Your task to perform on an android device: turn on location history Image 0: 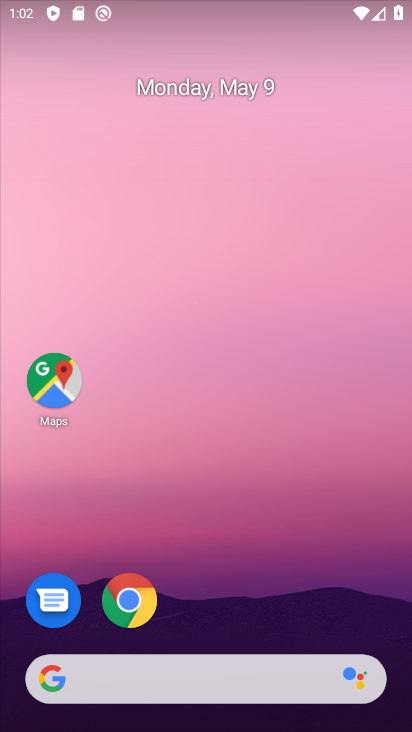
Step 0: drag from (191, 611) to (347, 104)
Your task to perform on an android device: turn on location history Image 1: 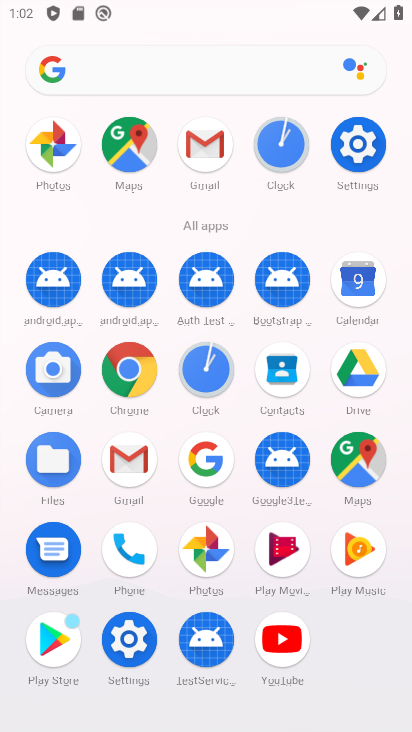
Step 1: click (346, 197)
Your task to perform on an android device: turn on location history Image 2: 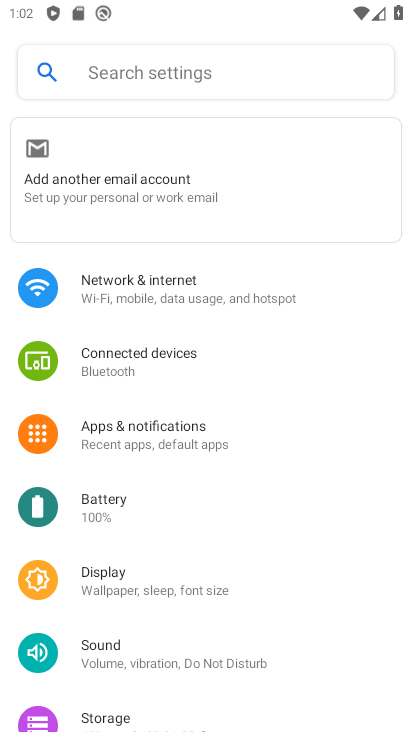
Step 2: drag from (118, 619) to (190, 149)
Your task to perform on an android device: turn on location history Image 3: 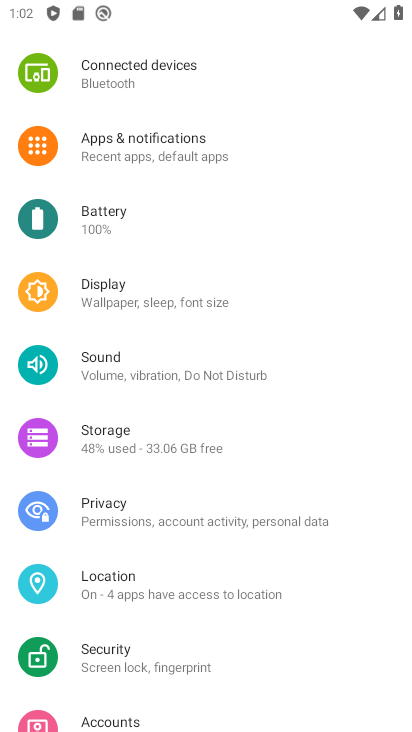
Step 3: click (112, 603)
Your task to perform on an android device: turn on location history Image 4: 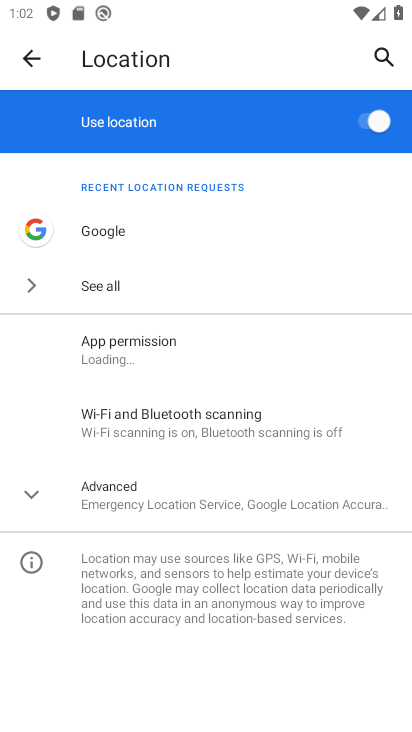
Step 4: click (133, 500)
Your task to perform on an android device: turn on location history Image 5: 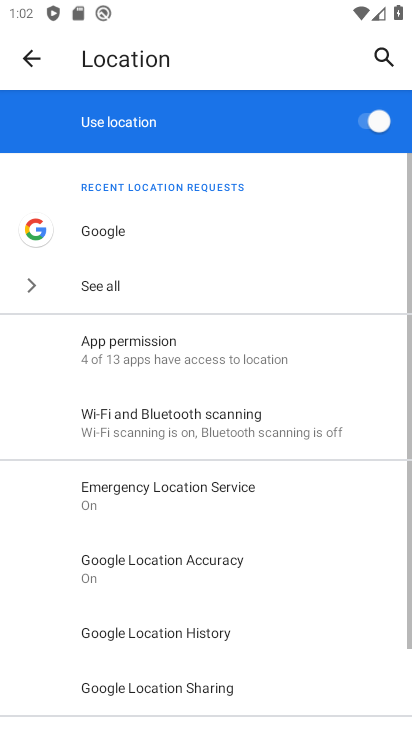
Step 5: click (213, 629)
Your task to perform on an android device: turn on location history Image 6: 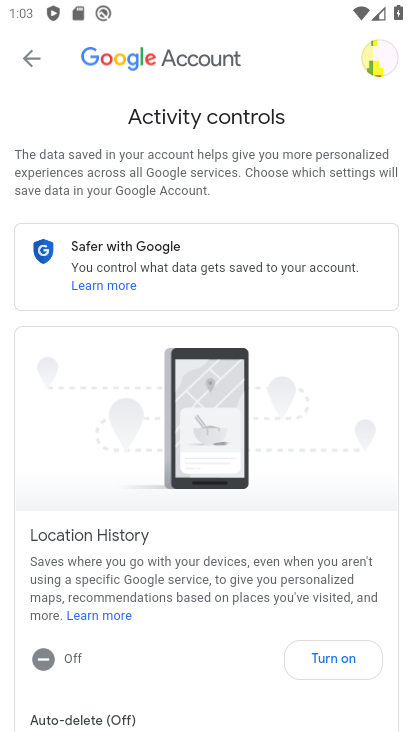
Step 6: click (213, 629)
Your task to perform on an android device: turn on location history Image 7: 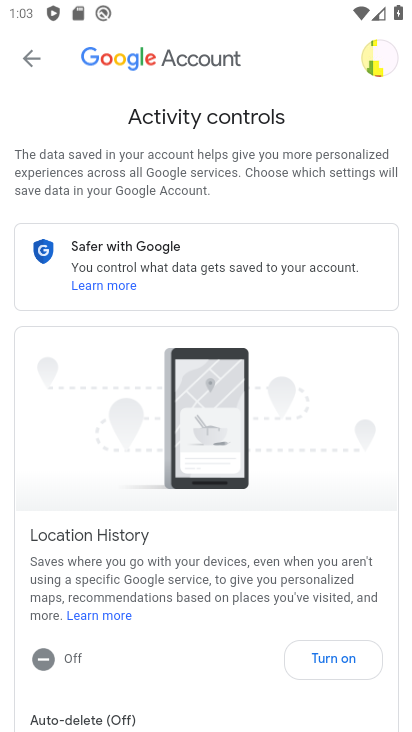
Step 7: click (213, 629)
Your task to perform on an android device: turn on location history Image 8: 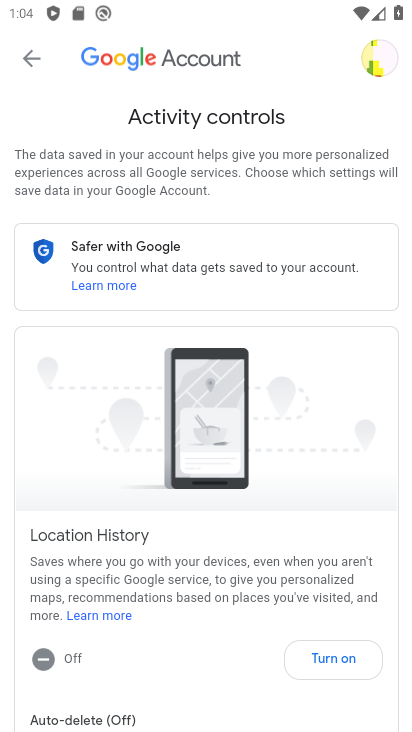
Step 8: click (324, 665)
Your task to perform on an android device: turn on location history Image 9: 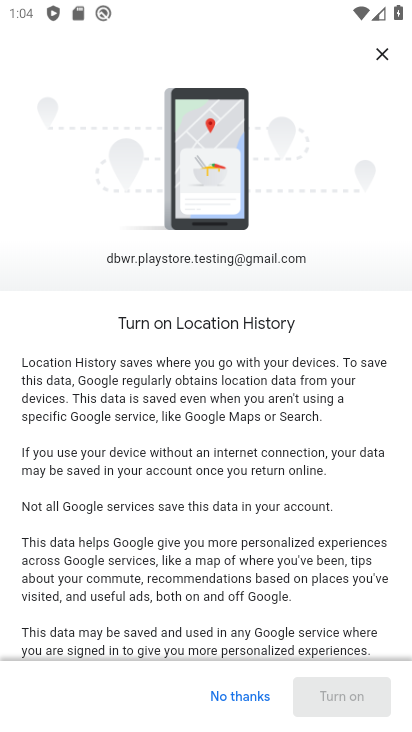
Step 9: drag from (242, 610) to (214, 196)
Your task to perform on an android device: turn on location history Image 10: 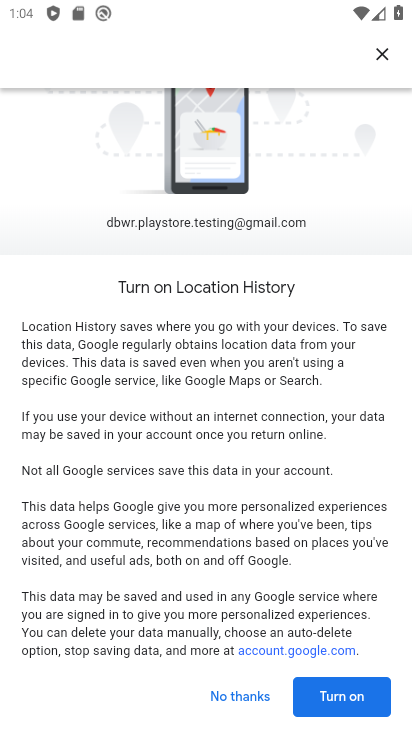
Step 10: click (348, 697)
Your task to perform on an android device: turn on location history Image 11: 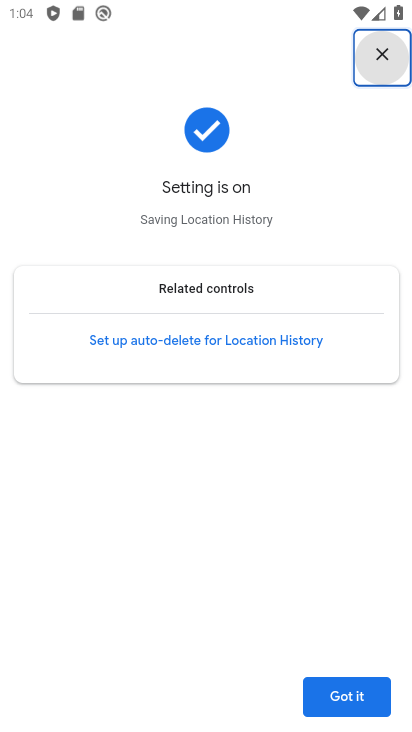
Step 11: click (348, 697)
Your task to perform on an android device: turn on location history Image 12: 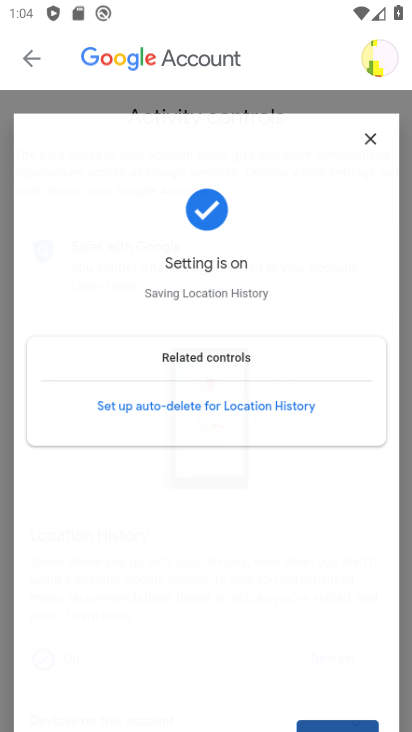
Step 12: task complete